Your task to perform on an android device: Open calendar and show me the third week of next month Image 0: 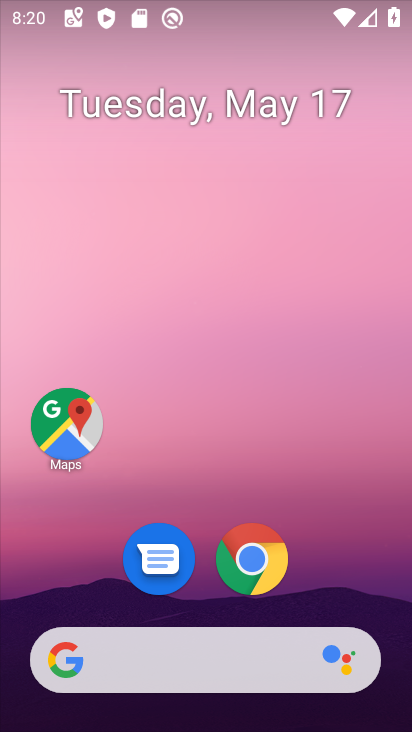
Step 0: drag from (133, 723) to (183, 134)
Your task to perform on an android device: Open calendar and show me the third week of next month Image 1: 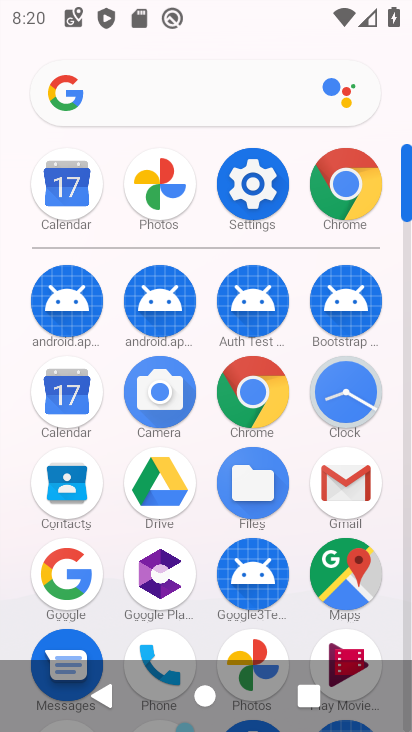
Step 1: click (55, 394)
Your task to perform on an android device: Open calendar and show me the third week of next month Image 2: 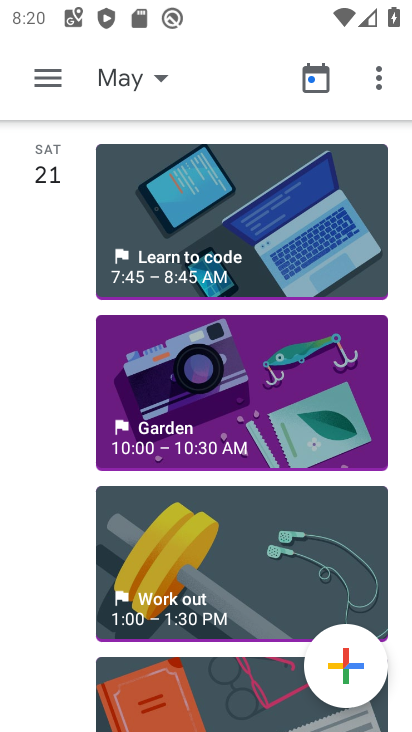
Step 2: click (118, 83)
Your task to perform on an android device: Open calendar and show me the third week of next month Image 3: 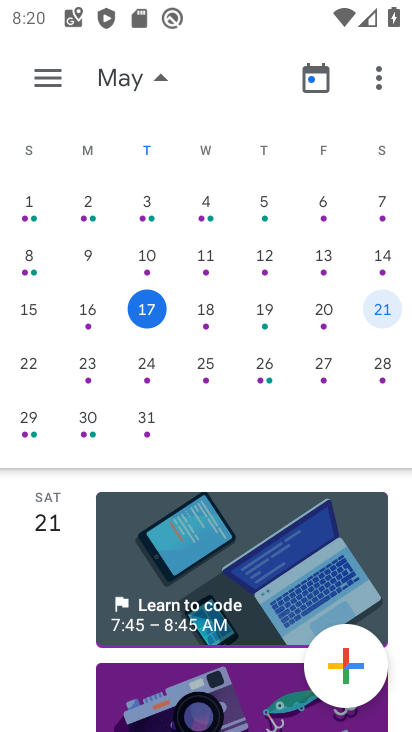
Step 3: drag from (329, 293) to (22, 361)
Your task to perform on an android device: Open calendar and show me the third week of next month Image 4: 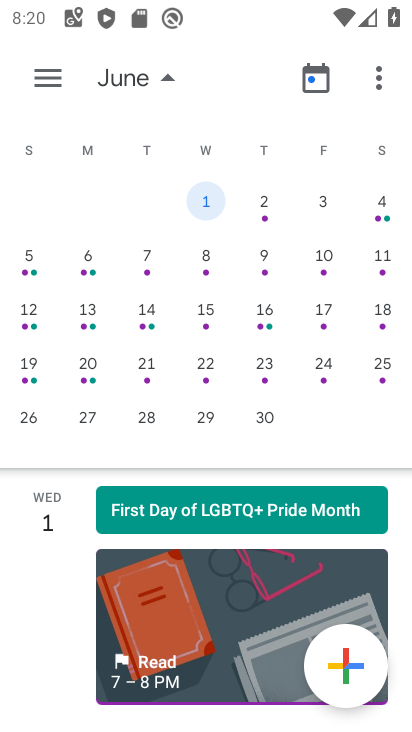
Step 4: click (19, 313)
Your task to perform on an android device: Open calendar and show me the third week of next month Image 5: 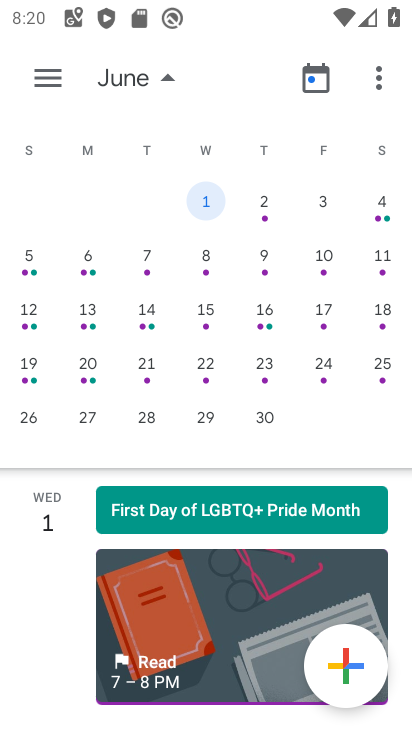
Step 5: click (30, 315)
Your task to perform on an android device: Open calendar and show me the third week of next month Image 6: 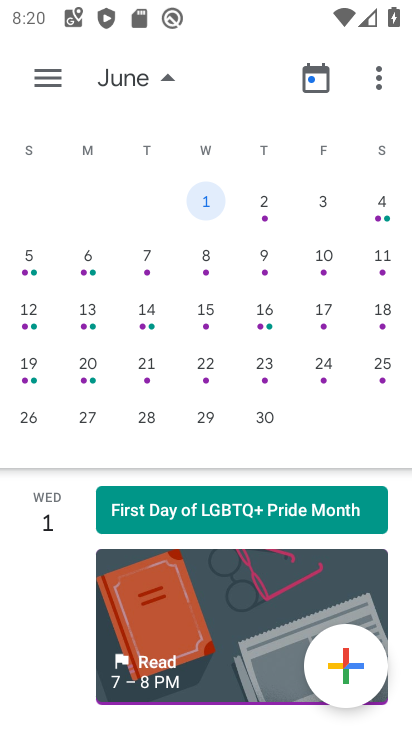
Step 6: click (30, 315)
Your task to perform on an android device: Open calendar and show me the third week of next month Image 7: 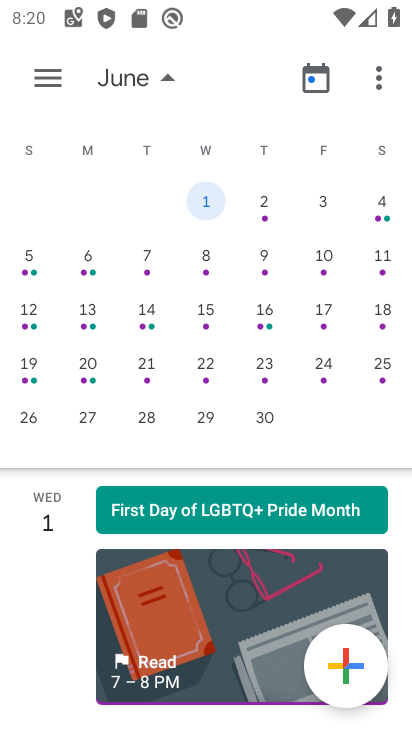
Step 7: click (30, 315)
Your task to perform on an android device: Open calendar and show me the third week of next month Image 8: 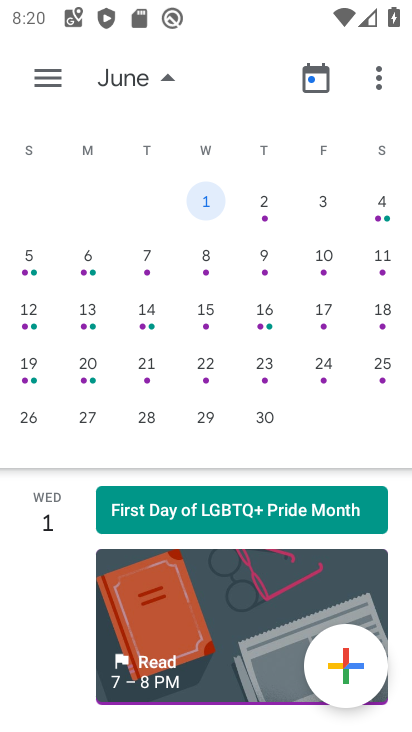
Step 8: click (30, 315)
Your task to perform on an android device: Open calendar and show me the third week of next month Image 9: 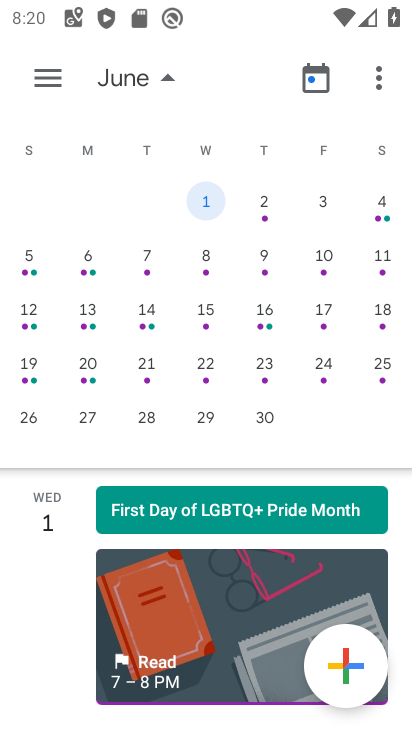
Step 9: click (32, 316)
Your task to perform on an android device: Open calendar and show me the third week of next month Image 10: 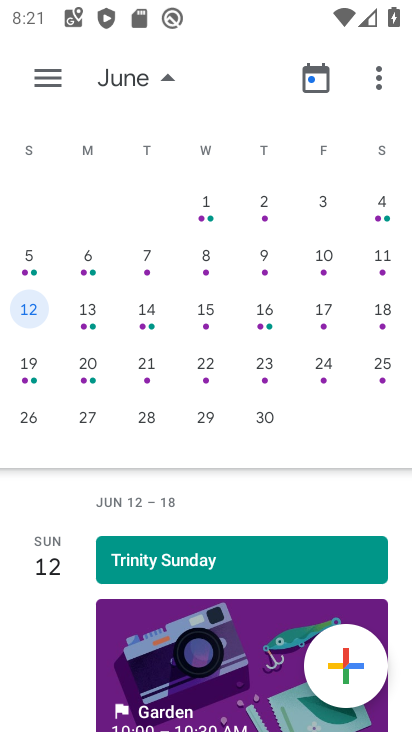
Step 10: task complete